Your task to perform on an android device: find snoozed emails in the gmail app Image 0: 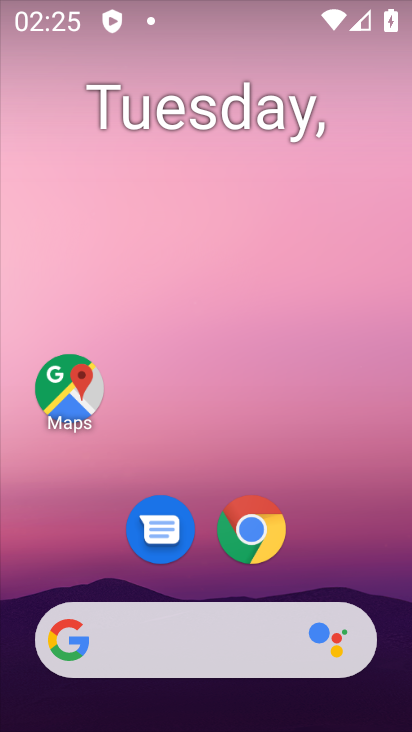
Step 0: drag from (335, 391) to (343, 0)
Your task to perform on an android device: find snoozed emails in the gmail app Image 1: 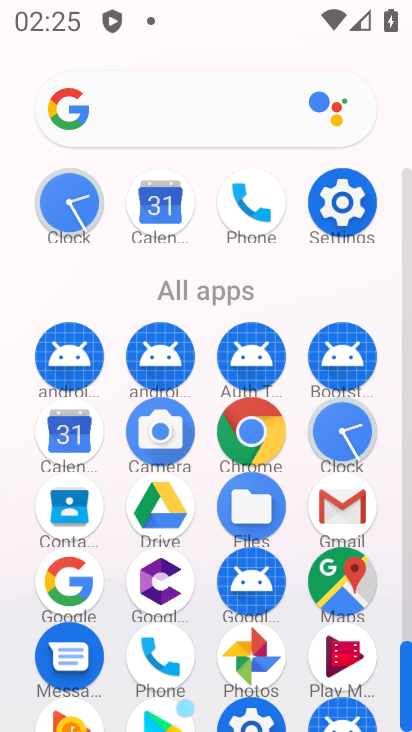
Step 1: click (347, 503)
Your task to perform on an android device: find snoozed emails in the gmail app Image 2: 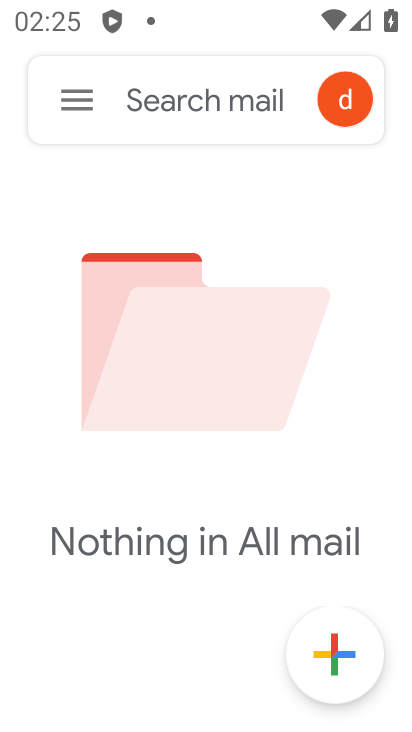
Step 2: click (62, 112)
Your task to perform on an android device: find snoozed emails in the gmail app Image 3: 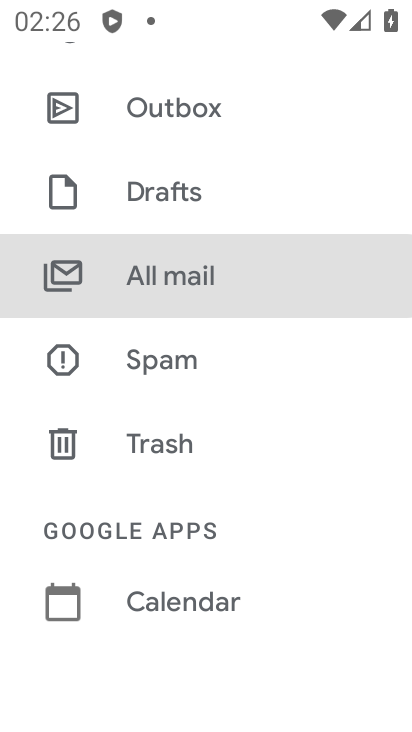
Step 3: drag from (194, 248) to (196, 665)
Your task to perform on an android device: find snoozed emails in the gmail app Image 4: 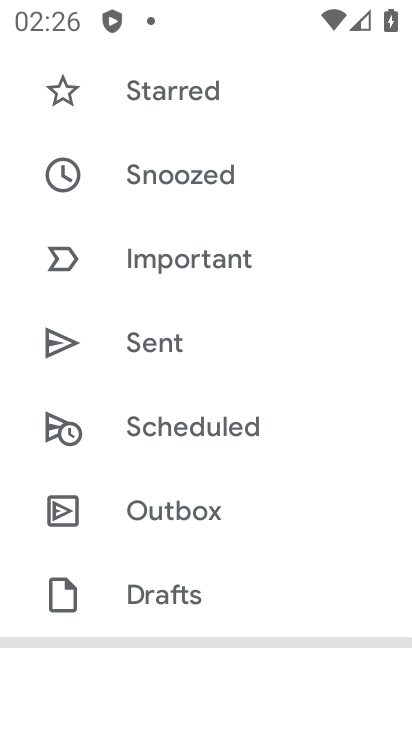
Step 4: click (219, 170)
Your task to perform on an android device: find snoozed emails in the gmail app Image 5: 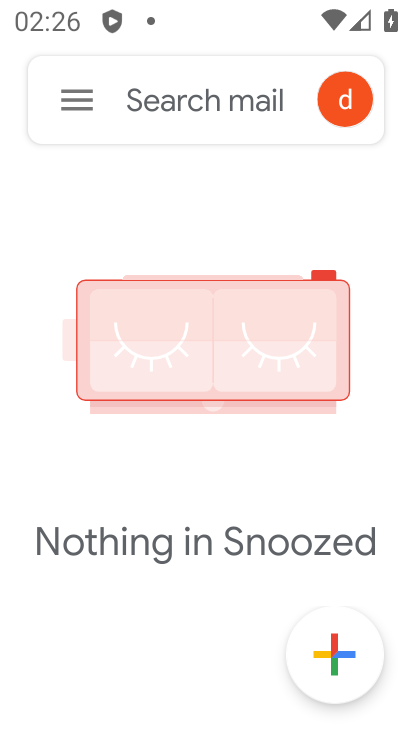
Step 5: task complete